Your task to perform on an android device: set the stopwatch Image 0: 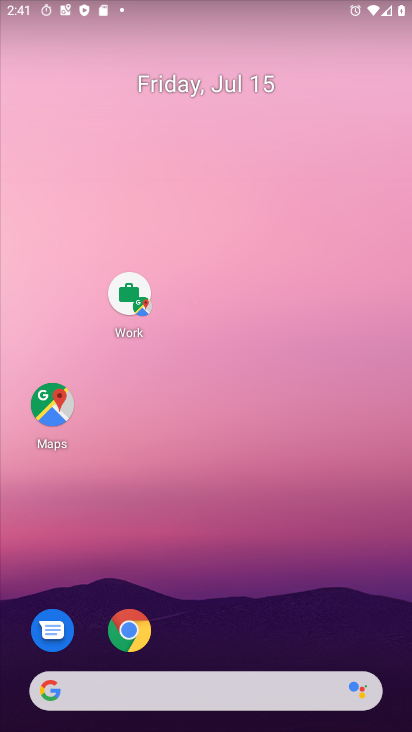
Step 0: drag from (228, 635) to (236, 217)
Your task to perform on an android device: set the stopwatch Image 1: 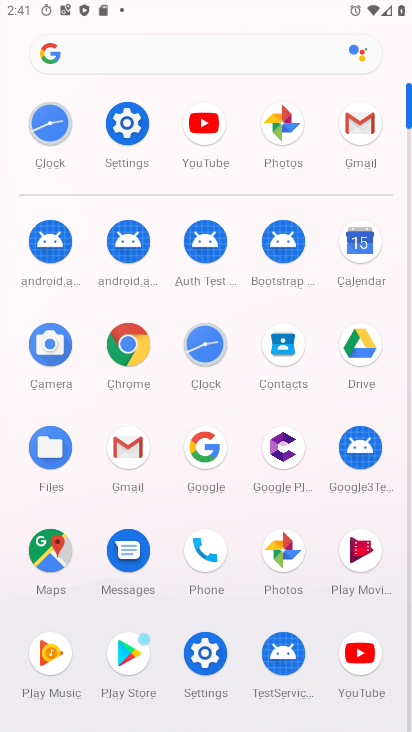
Step 1: click (209, 343)
Your task to perform on an android device: set the stopwatch Image 2: 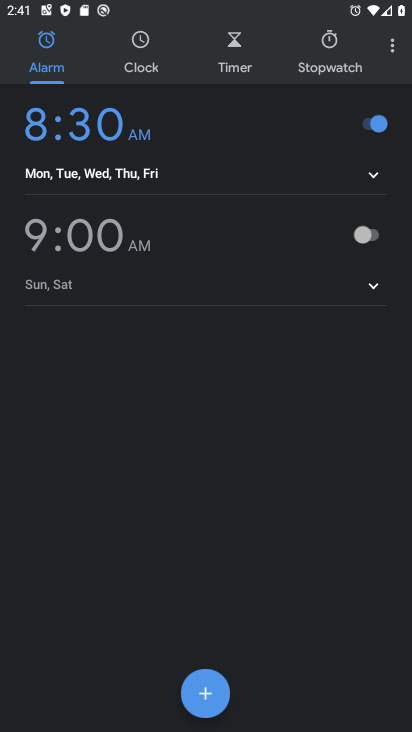
Step 2: click (316, 51)
Your task to perform on an android device: set the stopwatch Image 3: 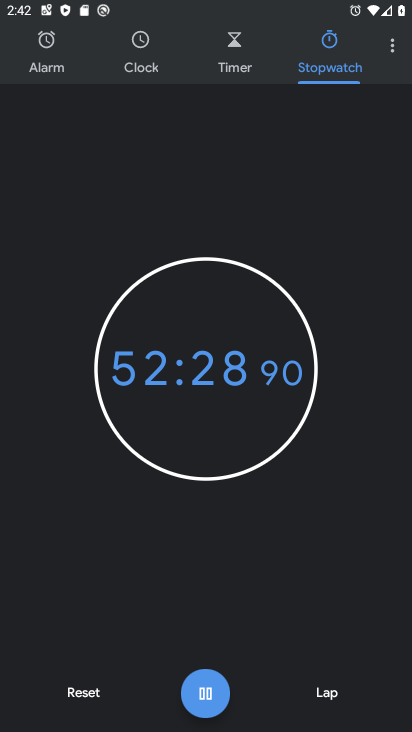
Step 3: task complete